Your task to perform on an android device: turn on data saver in the chrome app Image 0: 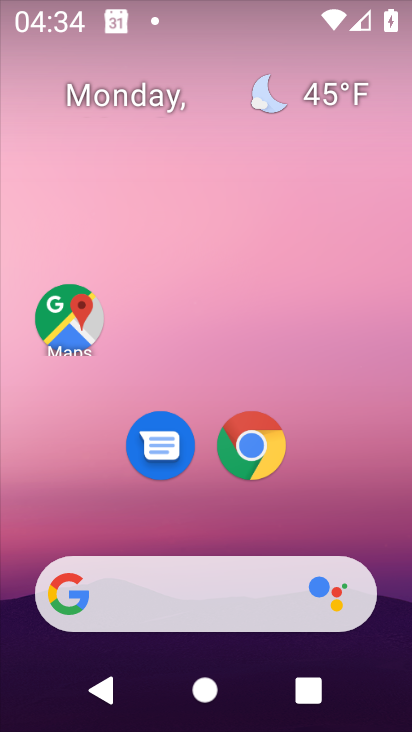
Step 0: click (248, 457)
Your task to perform on an android device: turn on data saver in the chrome app Image 1: 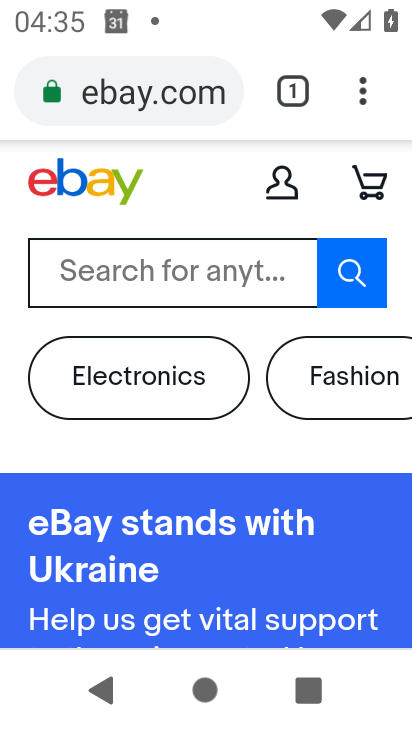
Step 1: click (356, 113)
Your task to perform on an android device: turn on data saver in the chrome app Image 2: 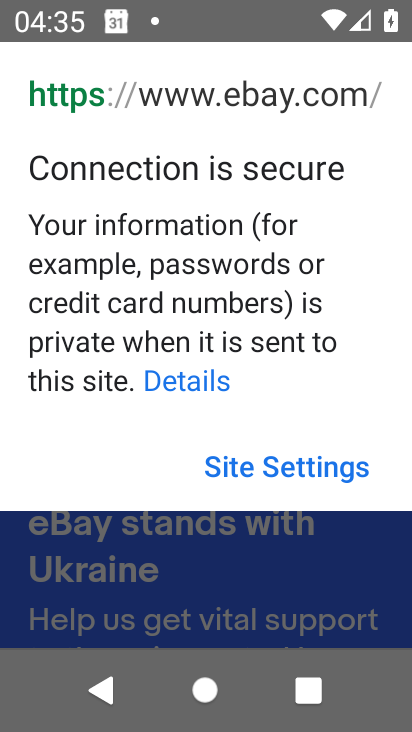
Step 2: click (233, 614)
Your task to perform on an android device: turn on data saver in the chrome app Image 3: 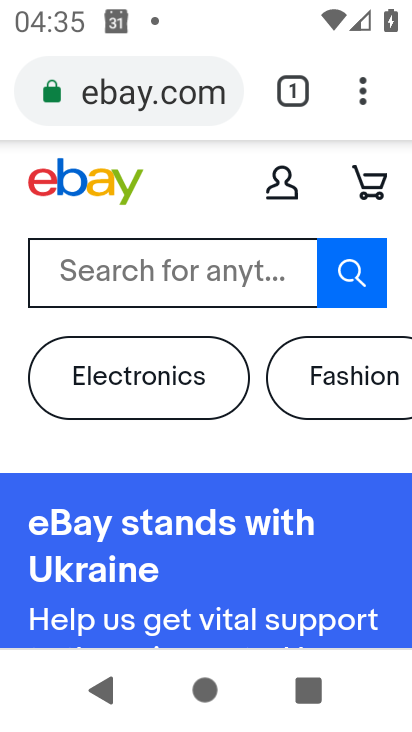
Step 3: click (361, 78)
Your task to perform on an android device: turn on data saver in the chrome app Image 4: 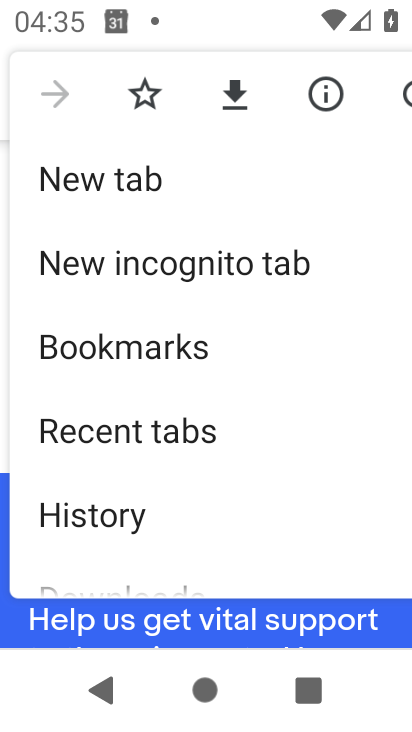
Step 4: drag from (264, 497) to (232, 79)
Your task to perform on an android device: turn on data saver in the chrome app Image 5: 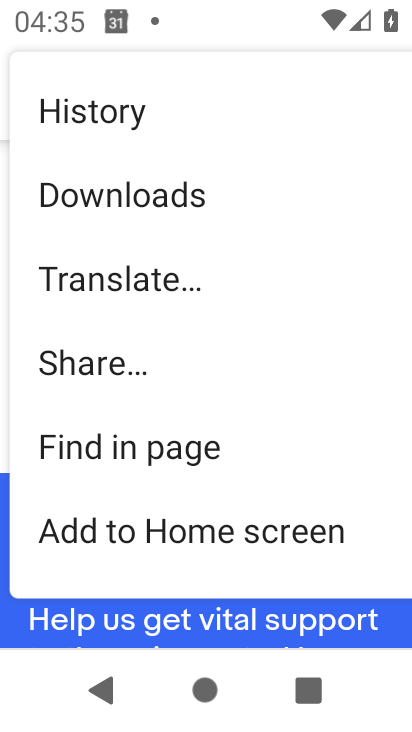
Step 5: drag from (136, 447) to (156, 166)
Your task to perform on an android device: turn on data saver in the chrome app Image 6: 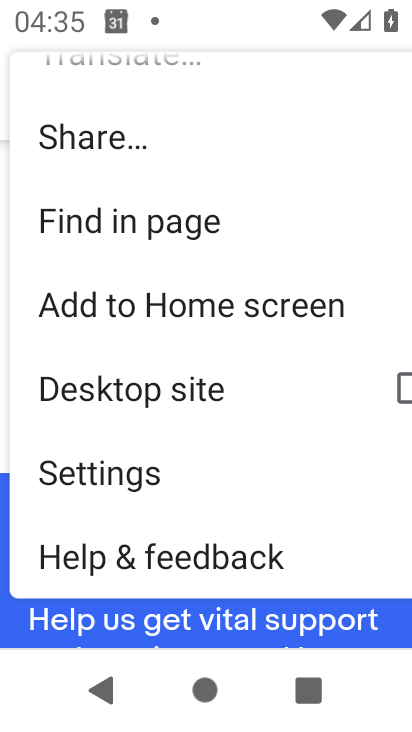
Step 6: click (157, 486)
Your task to perform on an android device: turn on data saver in the chrome app Image 7: 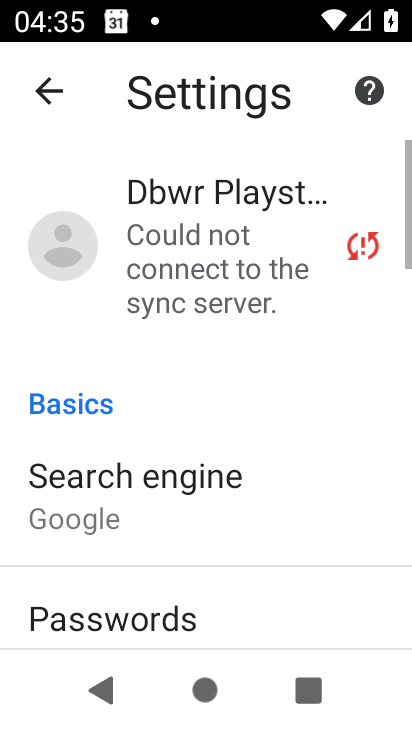
Step 7: drag from (159, 565) to (234, 224)
Your task to perform on an android device: turn on data saver in the chrome app Image 8: 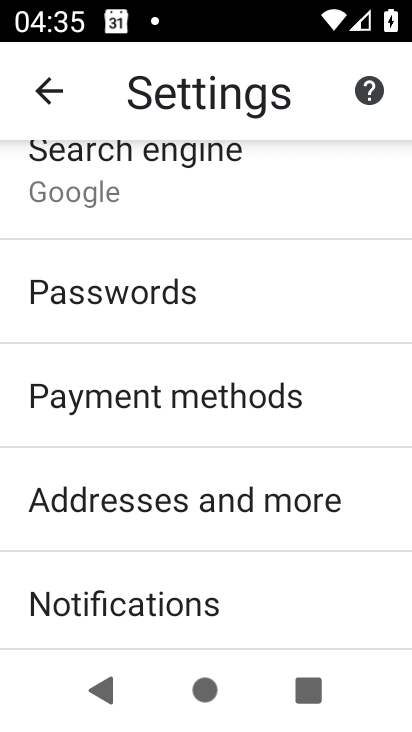
Step 8: drag from (283, 541) to (299, 210)
Your task to perform on an android device: turn on data saver in the chrome app Image 9: 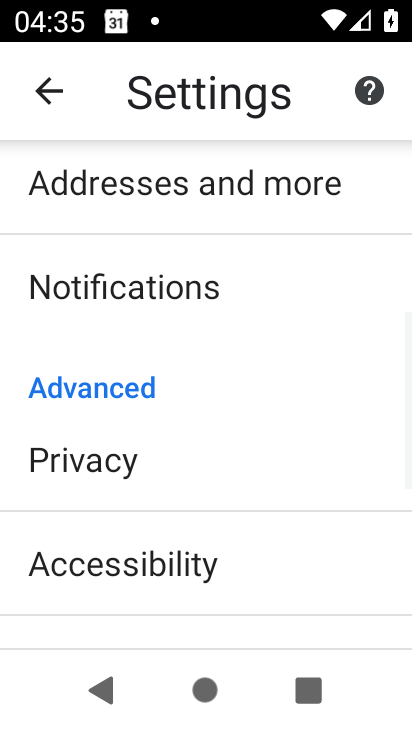
Step 9: drag from (241, 508) to (239, 164)
Your task to perform on an android device: turn on data saver in the chrome app Image 10: 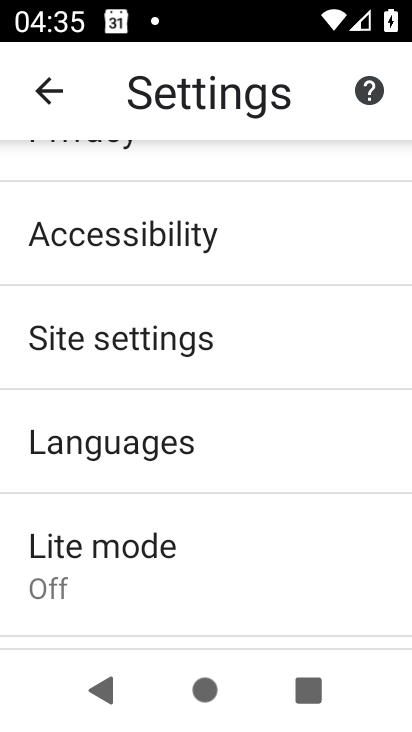
Step 10: drag from (213, 533) to (193, 265)
Your task to perform on an android device: turn on data saver in the chrome app Image 11: 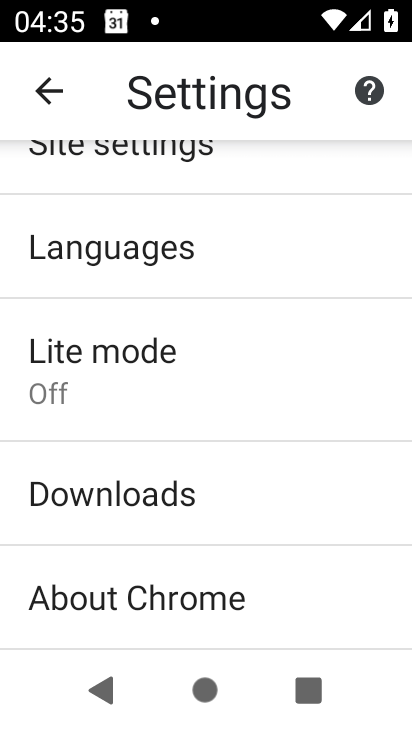
Step 11: drag from (191, 606) to (188, 479)
Your task to perform on an android device: turn on data saver in the chrome app Image 12: 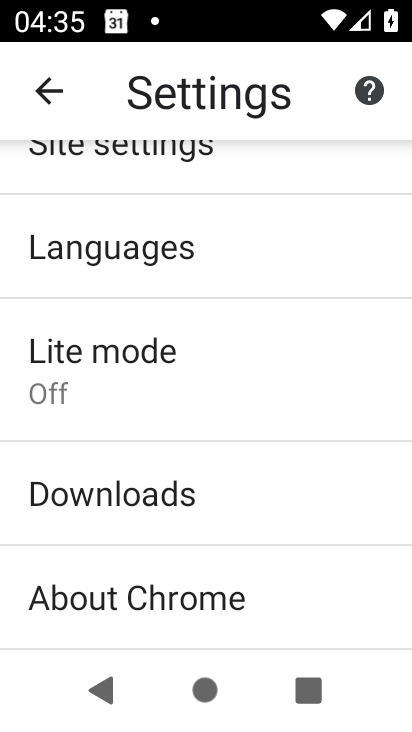
Step 12: click (179, 399)
Your task to perform on an android device: turn on data saver in the chrome app Image 13: 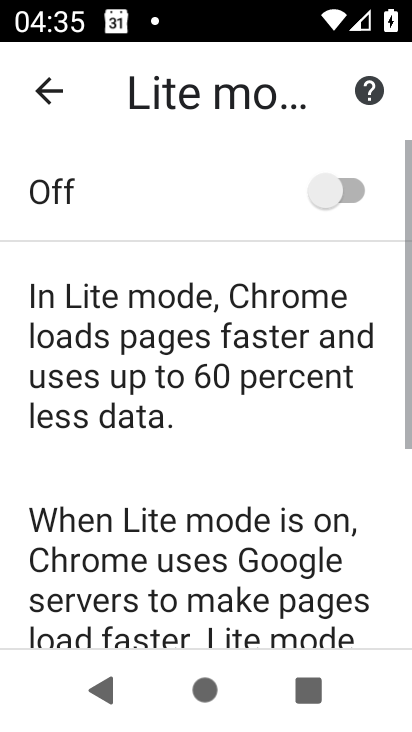
Step 13: click (338, 189)
Your task to perform on an android device: turn on data saver in the chrome app Image 14: 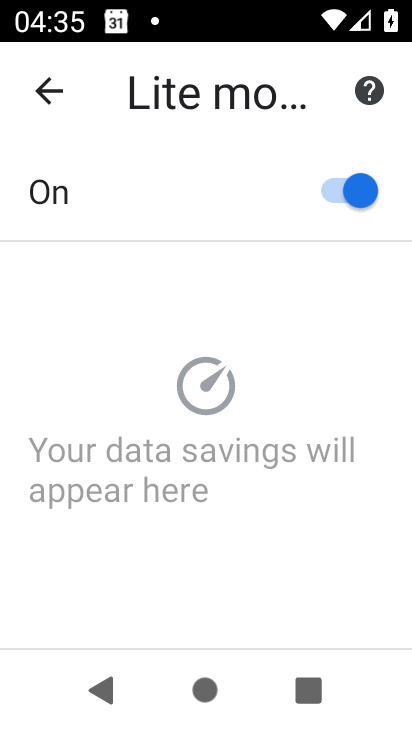
Step 14: task complete